Your task to perform on an android device: open the mobile data screen to see how much data has been used Image 0: 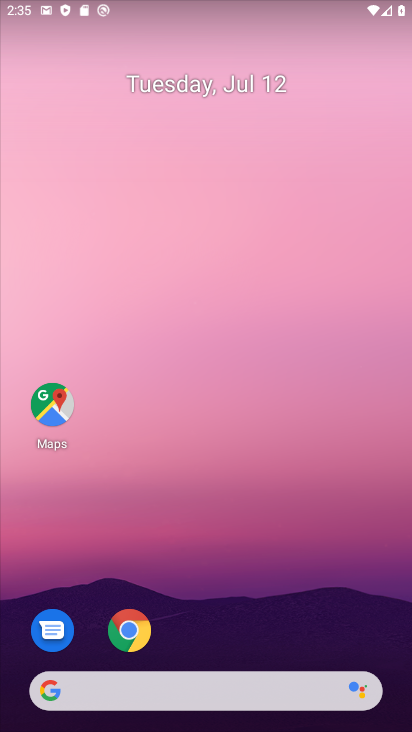
Step 0: drag from (257, 679) to (254, 58)
Your task to perform on an android device: open the mobile data screen to see how much data has been used Image 1: 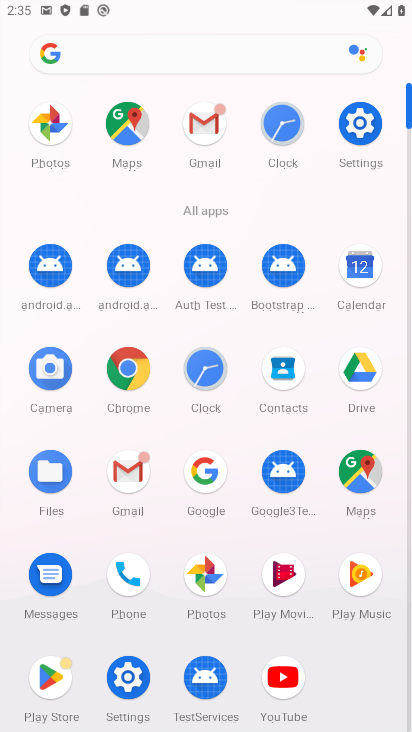
Step 1: click (363, 121)
Your task to perform on an android device: open the mobile data screen to see how much data has been used Image 2: 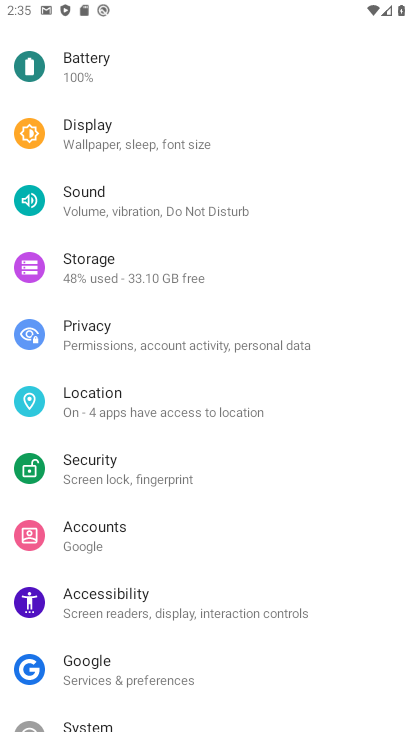
Step 2: drag from (107, 121) to (155, 625)
Your task to perform on an android device: open the mobile data screen to see how much data has been used Image 3: 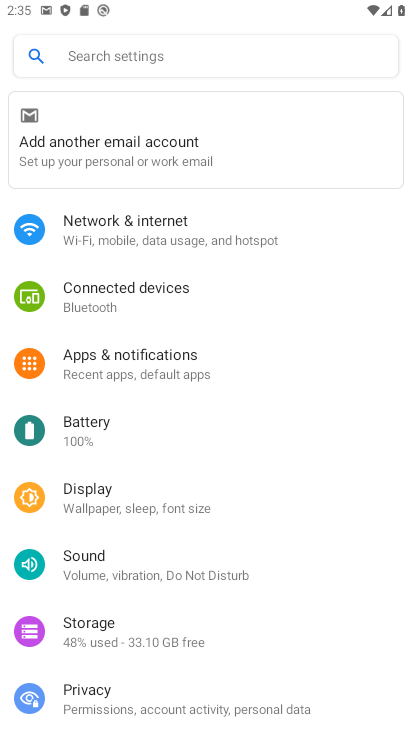
Step 3: click (141, 219)
Your task to perform on an android device: open the mobile data screen to see how much data has been used Image 4: 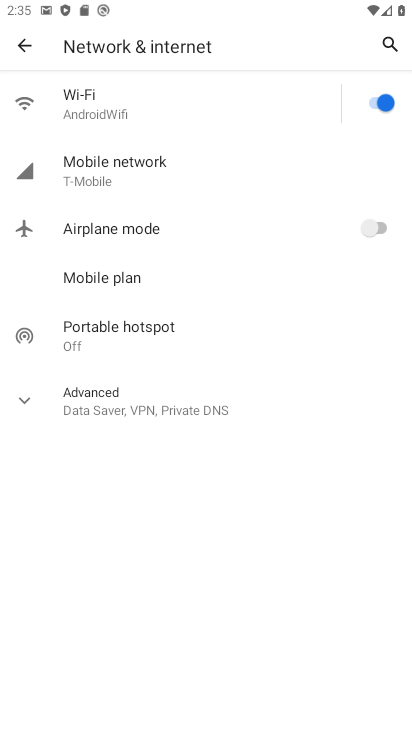
Step 4: click (139, 175)
Your task to perform on an android device: open the mobile data screen to see how much data has been used Image 5: 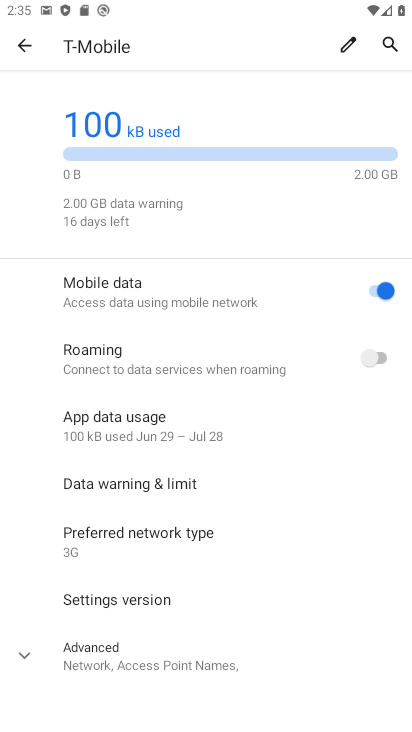
Step 5: task complete